Your task to perform on an android device: toggle wifi Image 0: 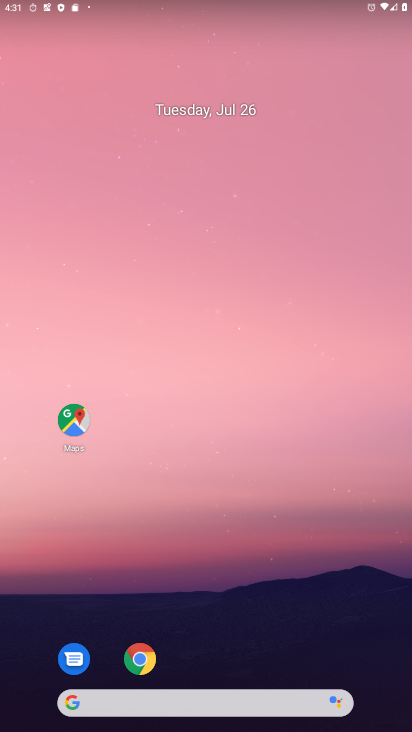
Step 0: drag from (203, 2) to (199, 391)
Your task to perform on an android device: toggle wifi Image 1: 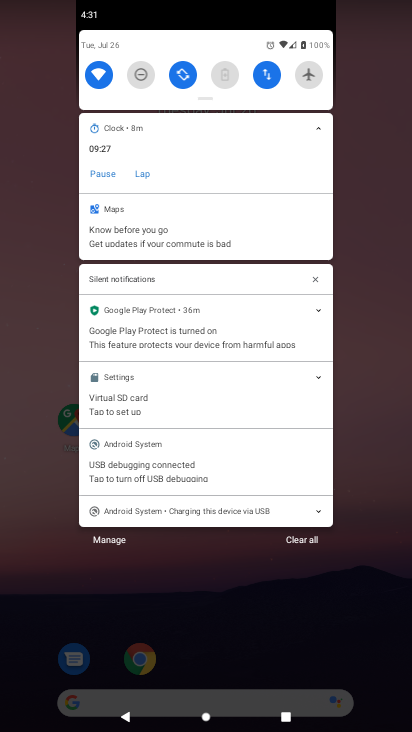
Step 1: click (96, 72)
Your task to perform on an android device: toggle wifi Image 2: 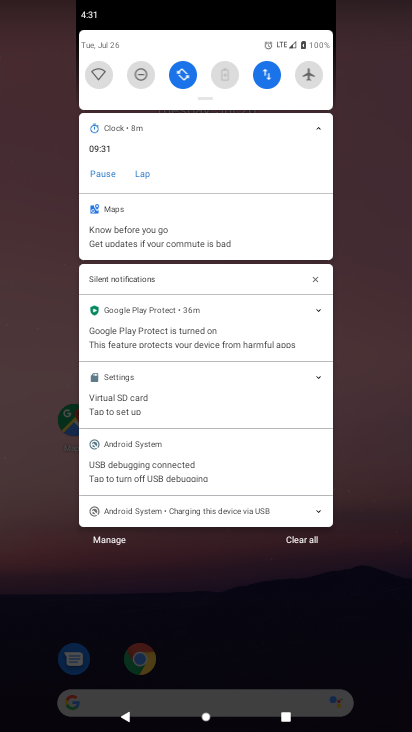
Step 2: task complete